Your task to perform on an android device: Go to Google Image 0: 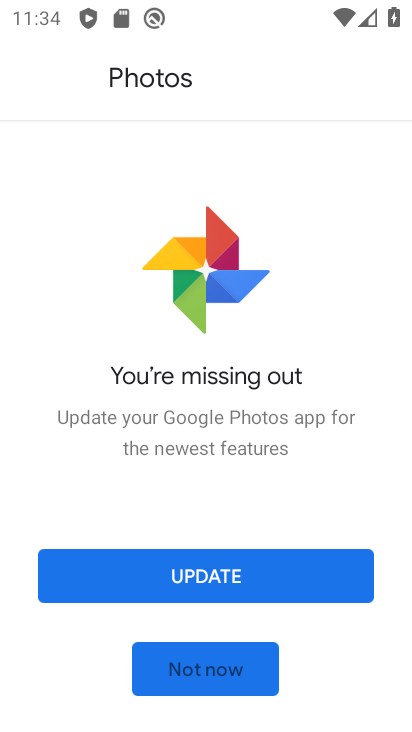
Step 0: press home button
Your task to perform on an android device: Go to Google Image 1: 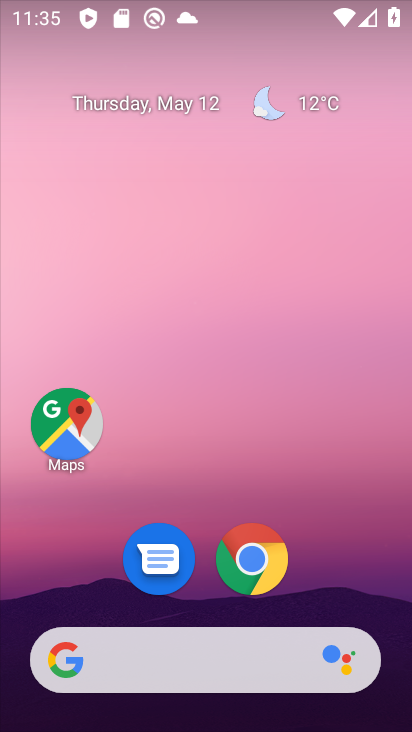
Step 1: drag from (89, 636) to (202, 155)
Your task to perform on an android device: Go to Google Image 2: 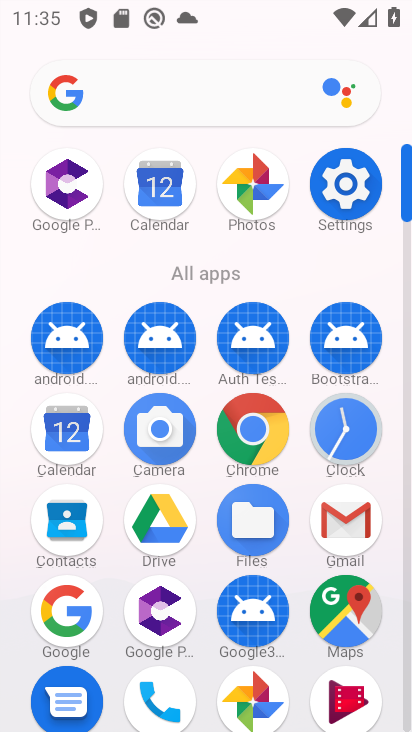
Step 2: click (88, 627)
Your task to perform on an android device: Go to Google Image 3: 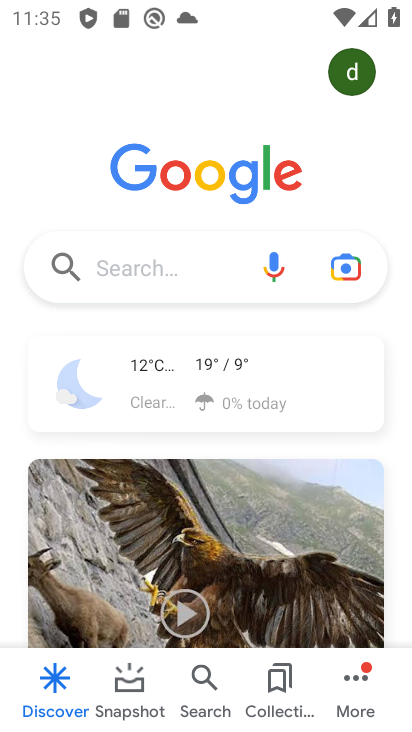
Step 3: task complete